Your task to perform on an android device: Search for seafood restaurants on Google Maps Image 0: 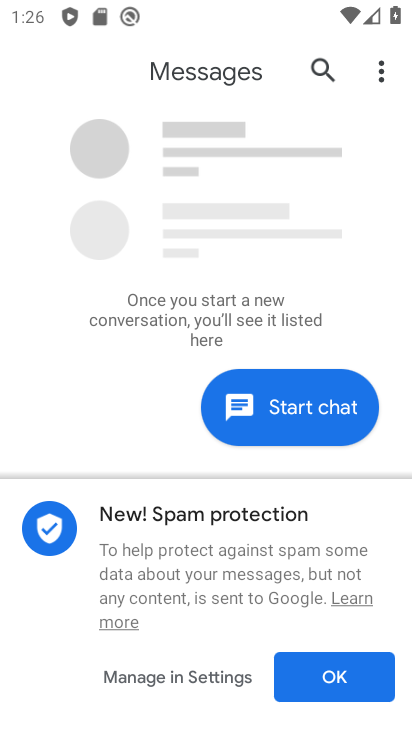
Step 0: press home button
Your task to perform on an android device: Search for seafood restaurants on Google Maps Image 1: 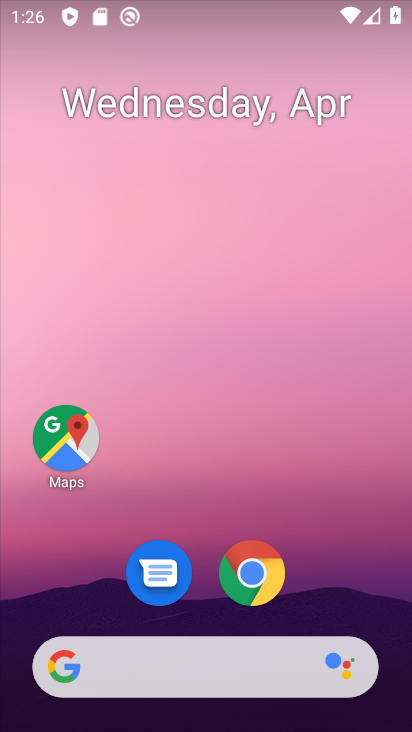
Step 1: drag from (204, 649) to (349, 75)
Your task to perform on an android device: Search for seafood restaurants on Google Maps Image 2: 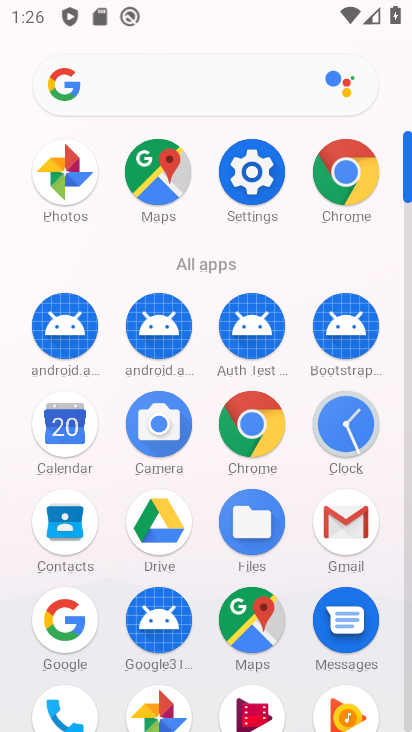
Step 2: click (149, 166)
Your task to perform on an android device: Search for seafood restaurants on Google Maps Image 3: 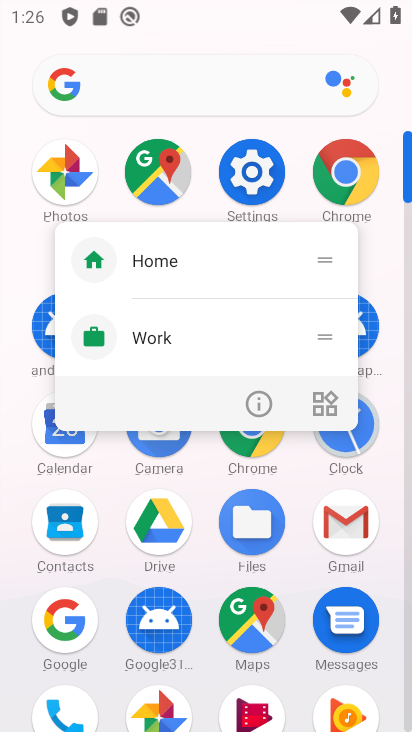
Step 3: click (156, 166)
Your task to perform on an android device: Search for seafood restaurants on Google Maps Image 4: 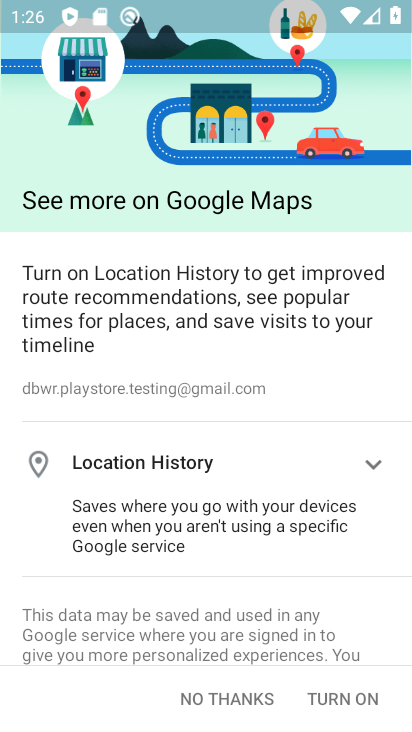
Step 4: click (183, 703)
Your task to perform on an android device: Search for seafood restaurants on Google Maps Image 5: 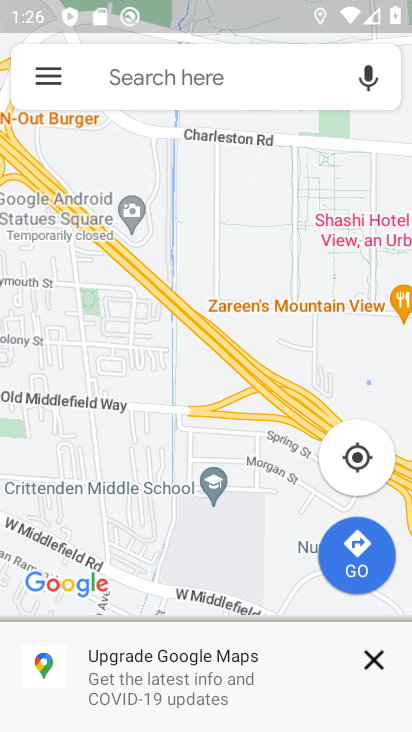
Step 5: click (163, 73)
Your task to perform on an android device: Search for seafood restaurants on Google Maps Image 6: 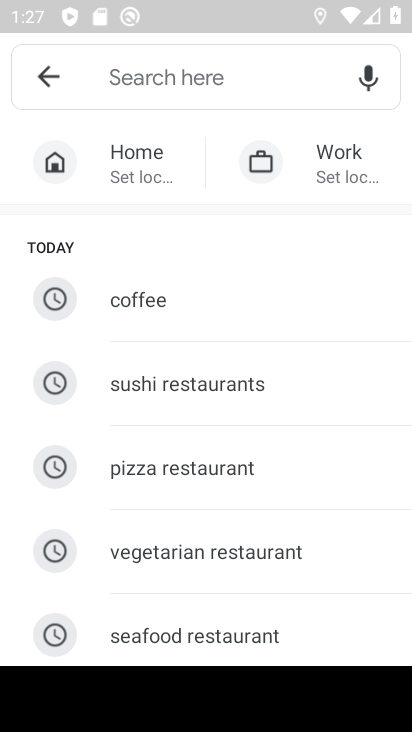
Step 6: click (244, 631)
Your task to perform on an android device: Search for seafood restaurants on Google Maps Image 7: 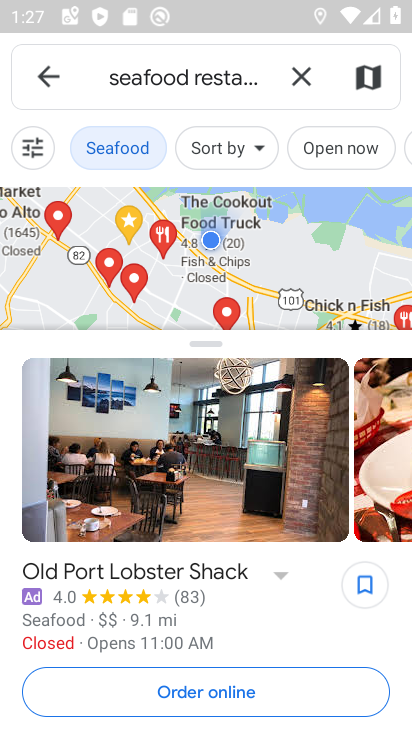
Step 7: task complete